Your task to perform on an android device: Open wifi settings Image 0: 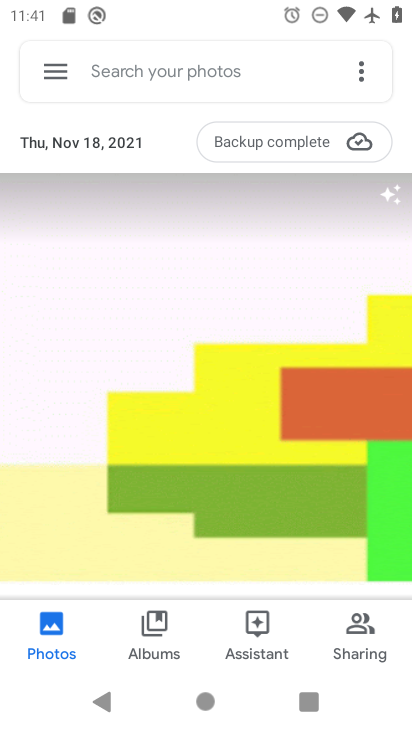
Step 0: press home button
Your task to perform on an android device: Open wifi settings Image 1: 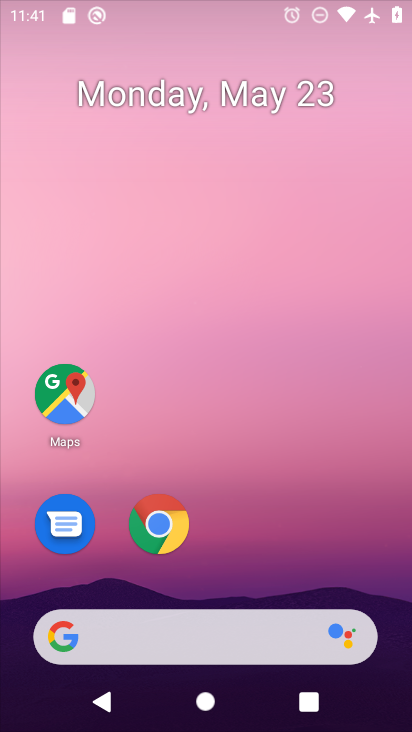
Step 1: drag from (217, 447) to (215, 58)
Your task to perform on an android device: Open wifi settings Image 2: 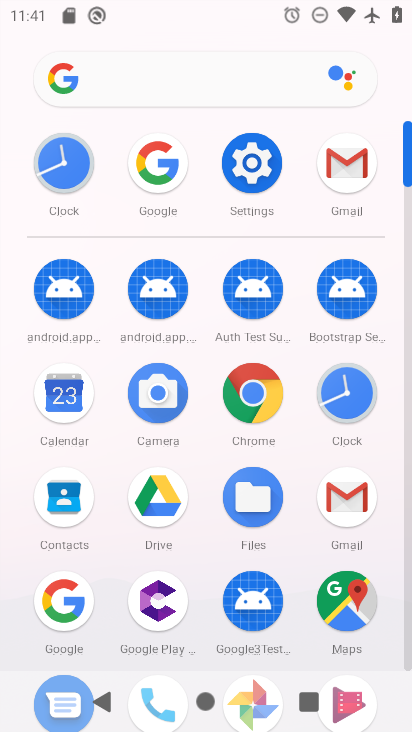
Step 2: click (228, 133)
Your task to perform on an android device: Open wifi settings Image 3: 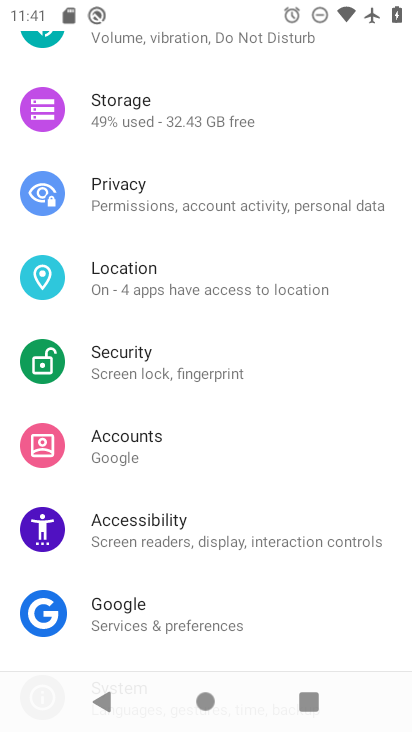
Step 3: drag from (187, 120) to (166, 648)
Your task to perform on an android device: Open wifi settings Image 4: 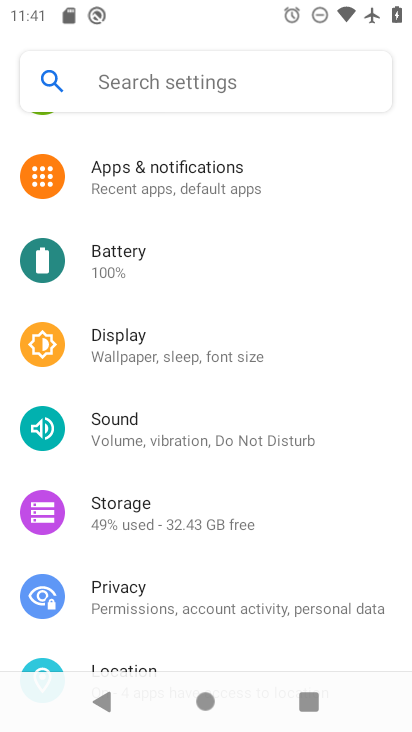
Step 4: drag from (155, 141) to (167, 651)
Your task to perform on an android device: Open wifi settings Image 5: 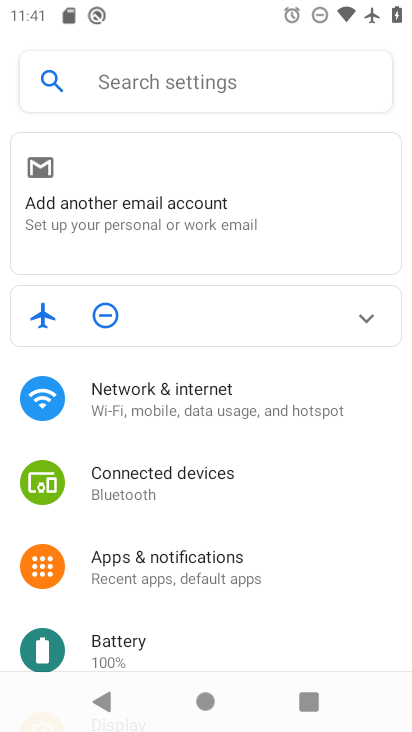
Step 5: click (129, 373)
Your task to perform on an android device: Open wifi settings Image 6: 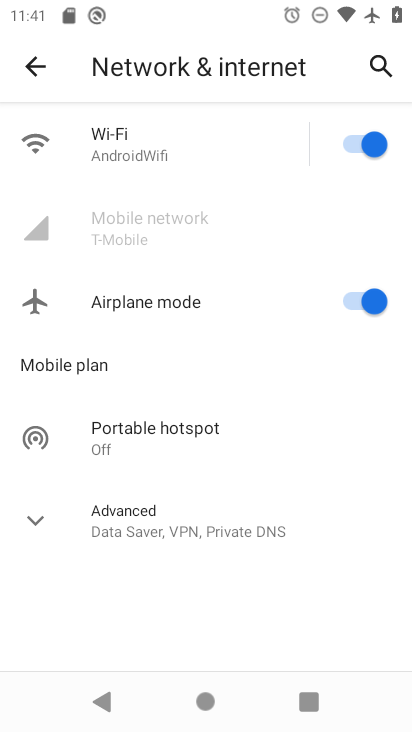
Step 6: click (162, 156)
Your task to perform on an android device: Open wifi settings Image 7: 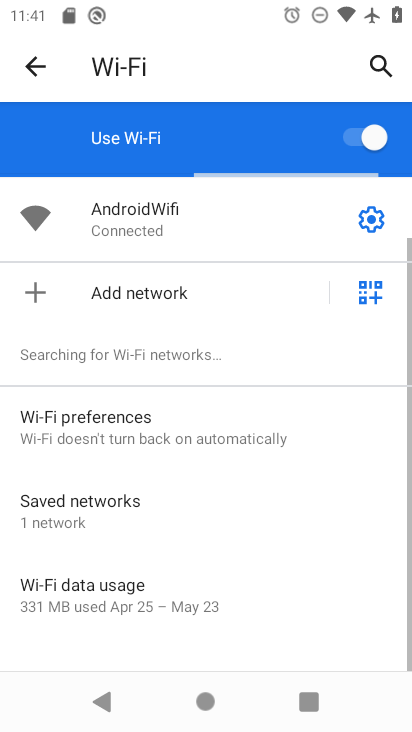
Step 7: task complete